Your task to perform on an android device: open a new tab in the chrome app Image 0: 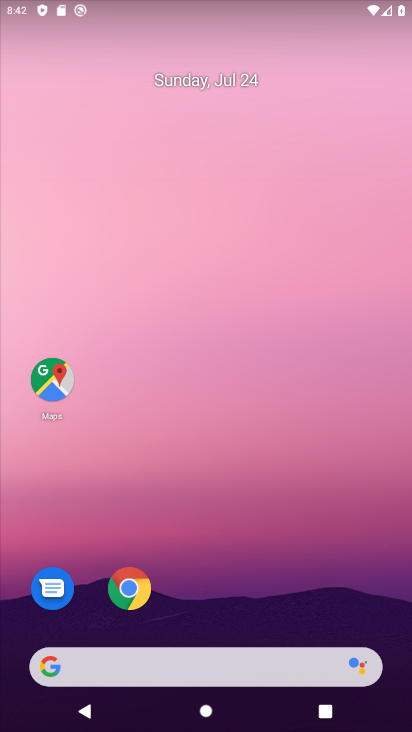
Step 0: click (132, 585)
Your task to perform on an android device: open a new tab in the chrome app Image 1: 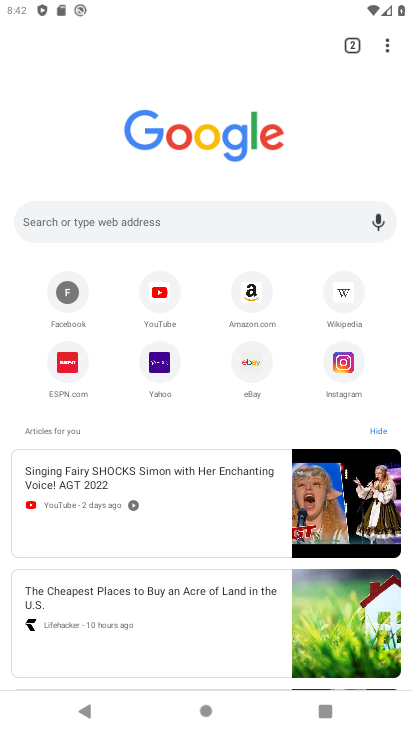
Step 1: click (388, 42)
Your task to perform on an android device: open a new tab in the chrome app Image 2: 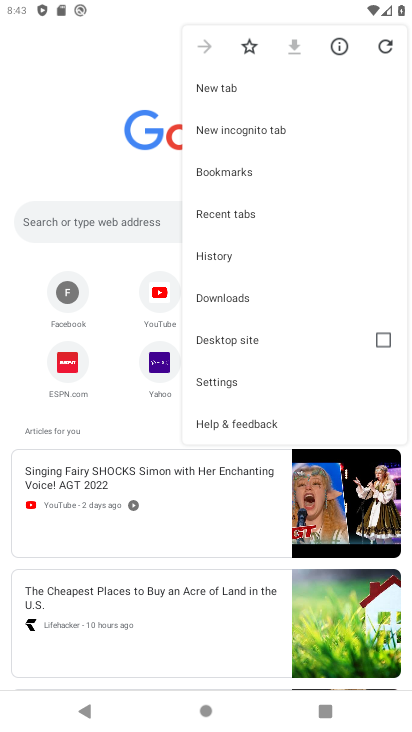
Step 2: click (222, 89)
Your task to perform on an android device: open a new tab in the chrome app Image 3: 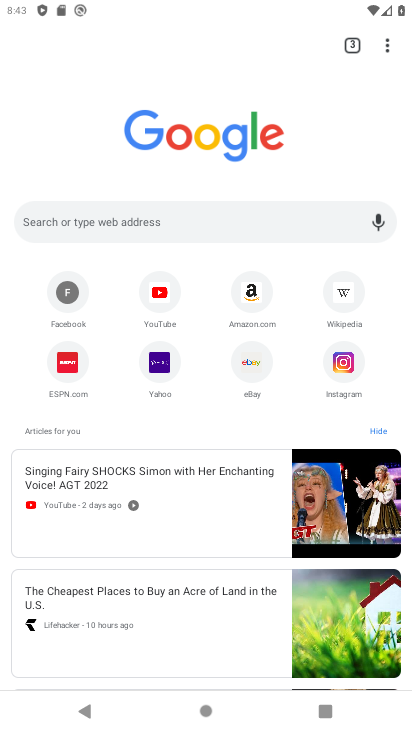
Step 3: task complete